Your task to perform on an android device: Add "usb-b" to the cart on newegg, then select checkout. Image 0: 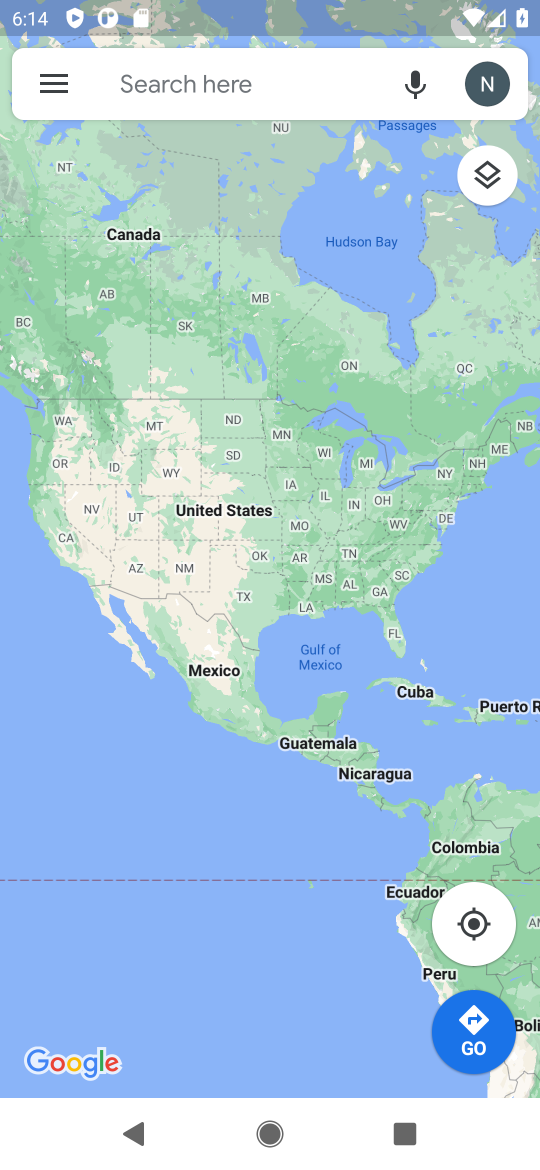
Step 0: press home button
Your task to perform on an android device: Add "usb-b" to the cart on newegg, then select checkout. Image 1: 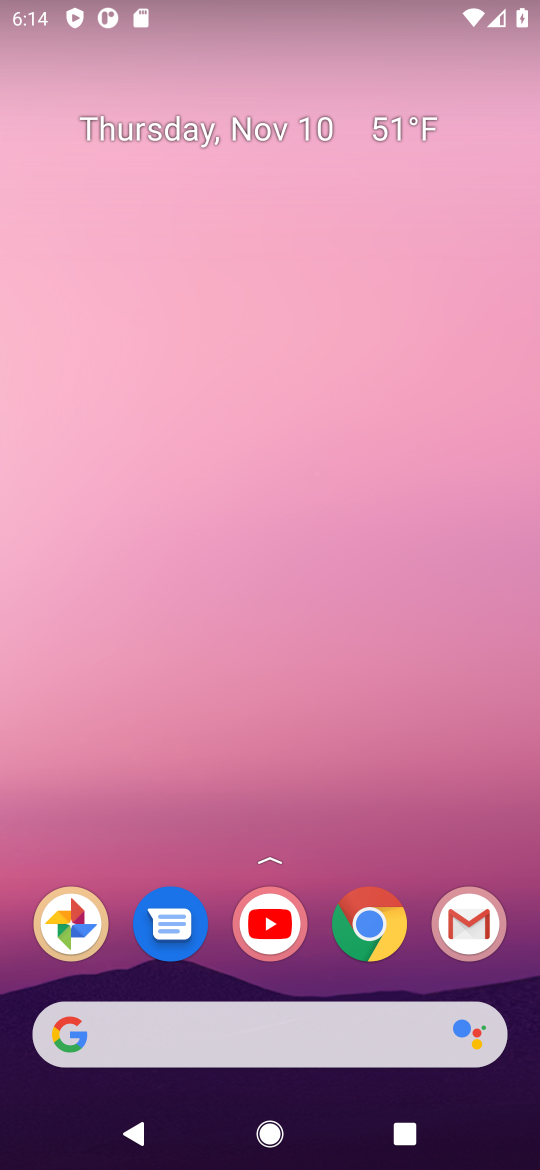
Step 1: click (371, 942)
Your task to perform on an android device: Add "usb-b" to the cart on newegg, then select checkout. Image 2: 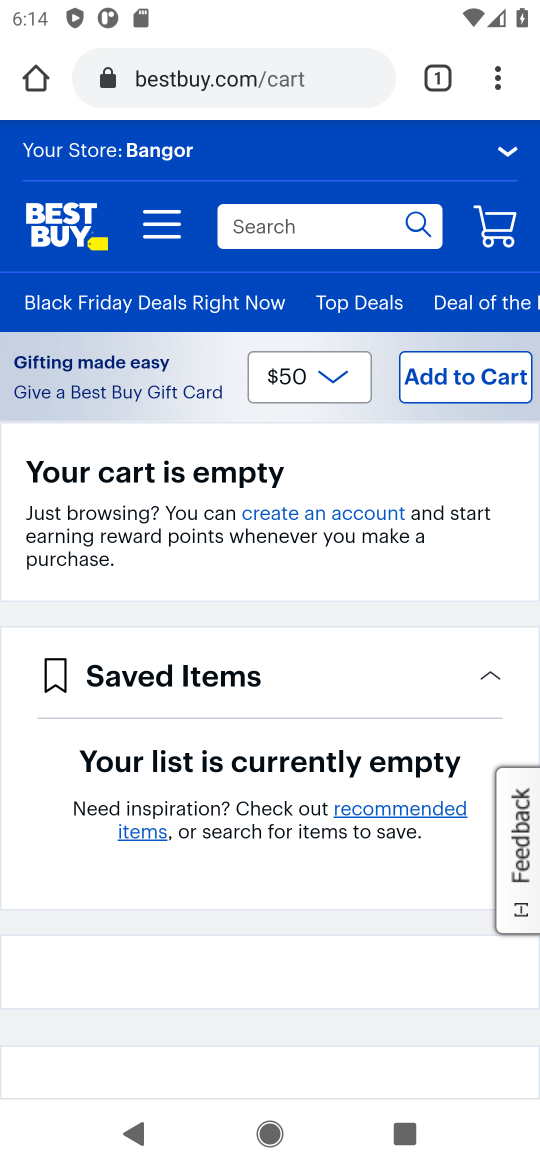
Step 2: click (232, 82)
Your task to perform on an android device: Add "usb-b" to the cart on newegg, then select checkout. Image 3: 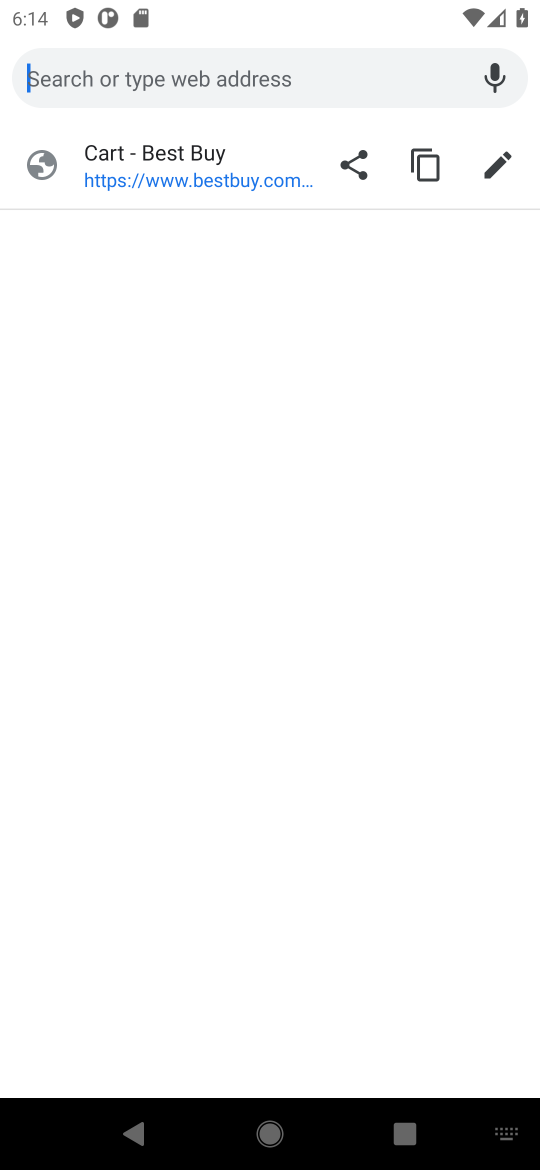
Step 3: type "newegg.com"
Your task to perform on an android device: Add "usb-b" to the cart on newegg, then select checkout. Image 4: 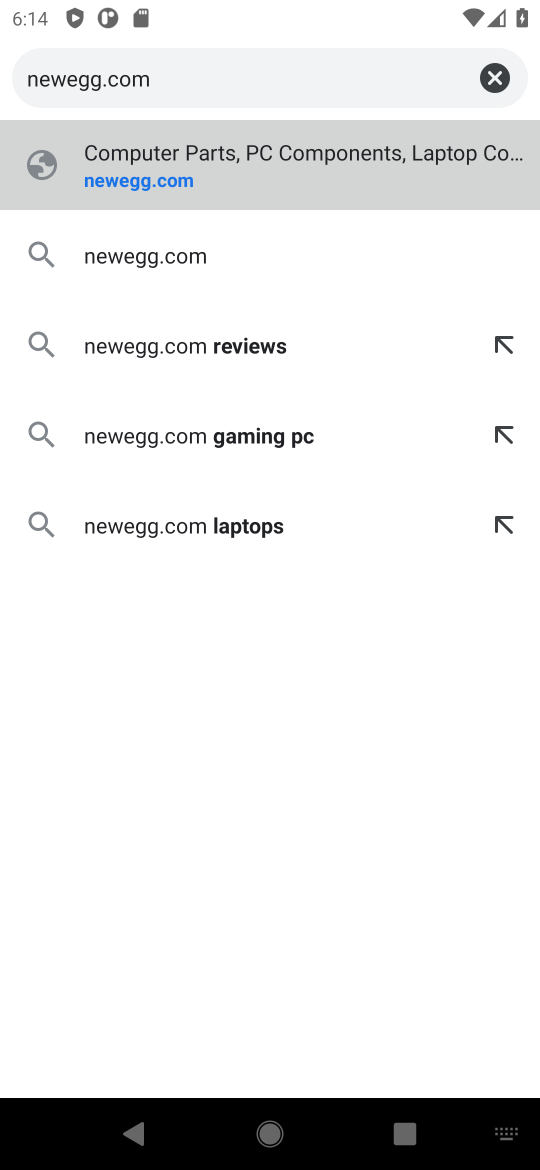
Step 4: click (121, 179)
Your task to perform on an android device: Add "usb-b" to the cart on newegg, then select checkout. Image 5: 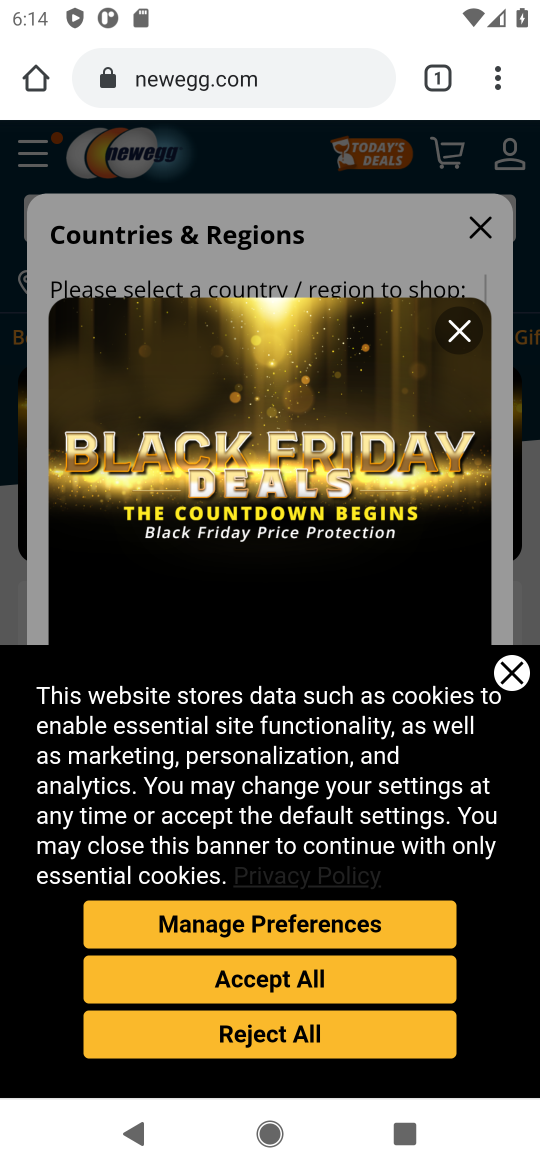
Step 5: click (466, 331)
Your task to perform on an android device: Add "usb-b" to the cart on newegg, then select checkout. Image 6: 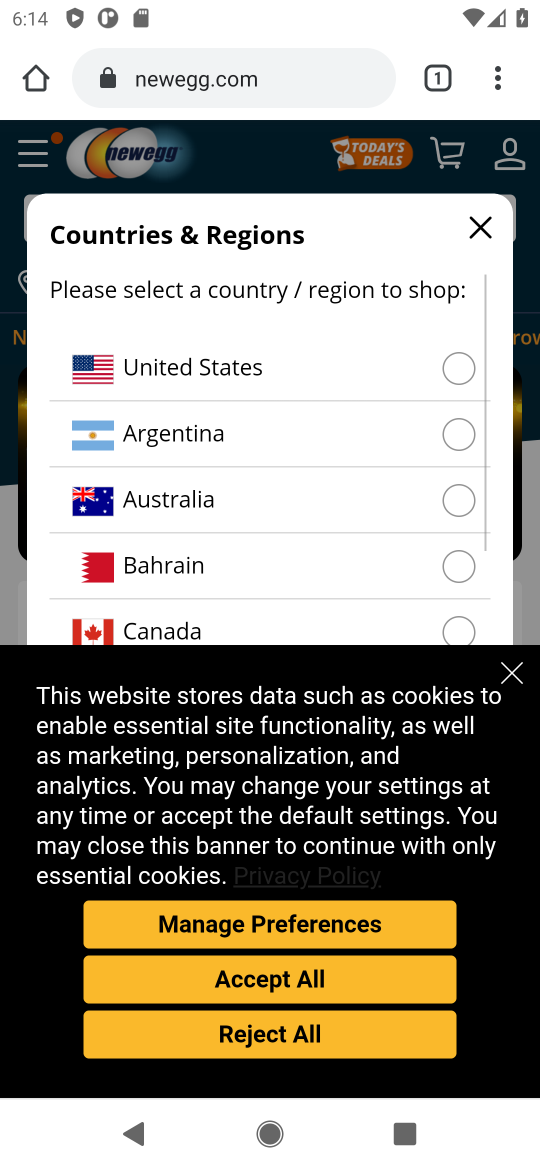
Step 6: click (166, 370)
Your task to perform on an android device: Add "usb-b" to the cart on newegg, then select checkout. Image 7: 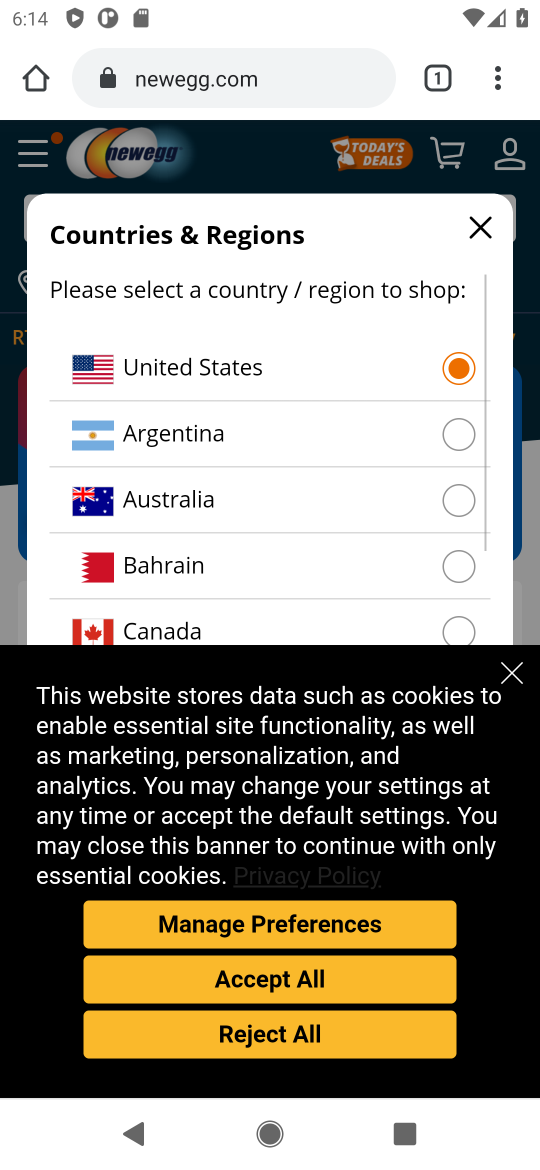
Step 7: click (504, 671)
Your task to perform on an android device: Add "usb-b" to the cart on newegg, then select checkout. Image 8: 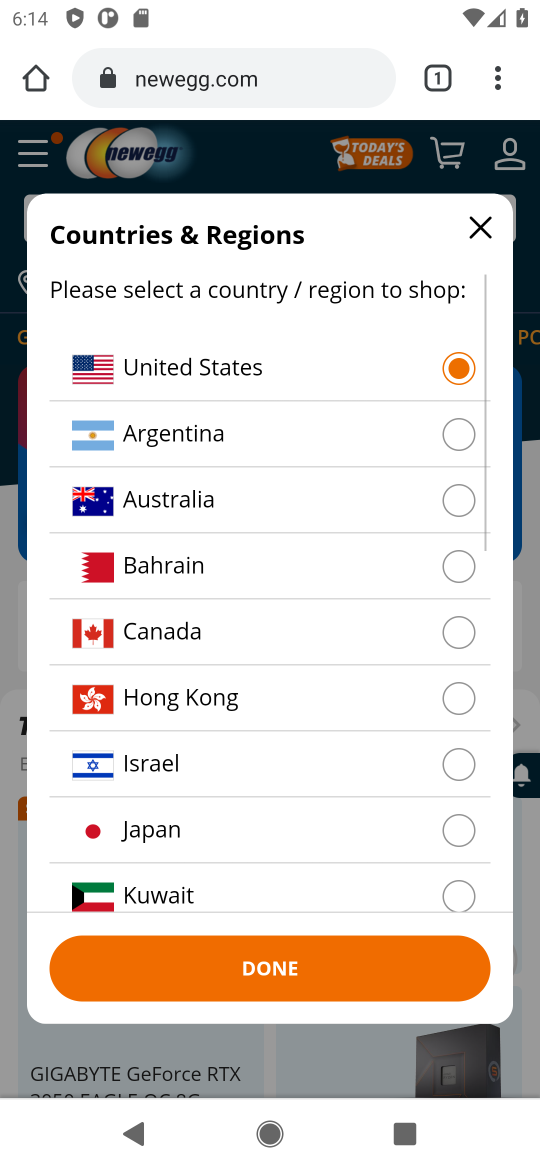
Step 8: click (255, 979)
Your task to perform on an android device: Add "usb-b" to the cart on newegg, then select checkout. Image 9: 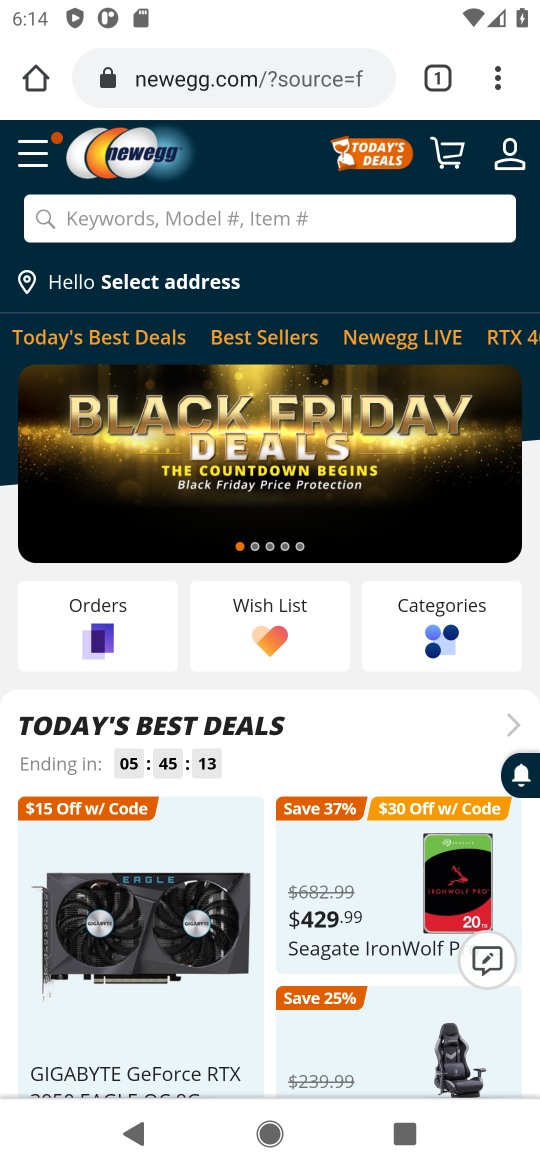
Step 9: click (190, 210)
Your task to perform on an android device: Add "usb-b" to the cart on newegg, then select checkout. Image 10: 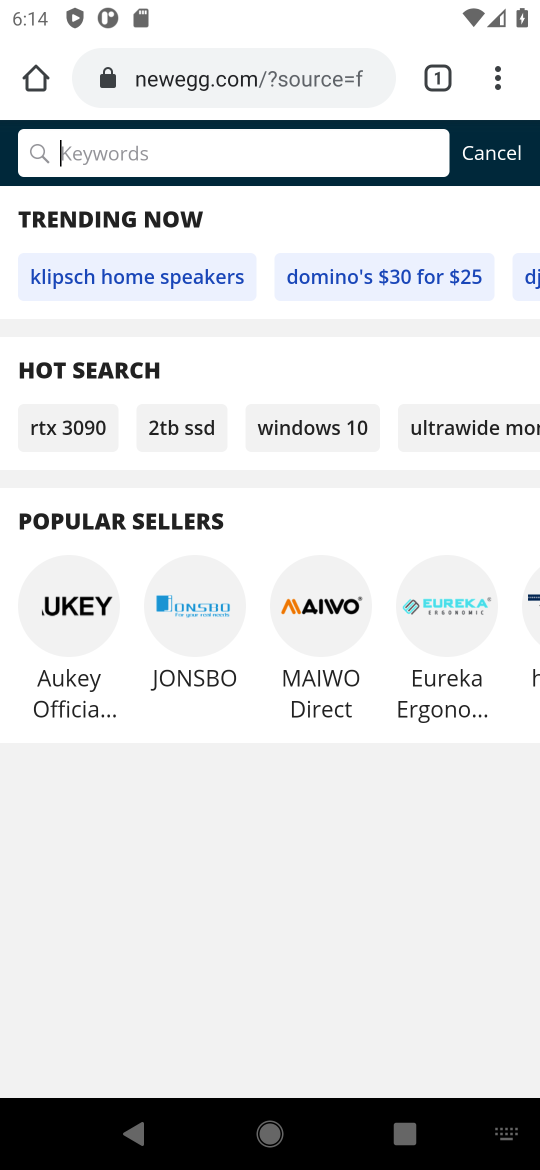
Step 10: type "usb-b"
Your task to perform on an android device: Add "usb-b" to the cart on newegg, then select checkout. Image 11: 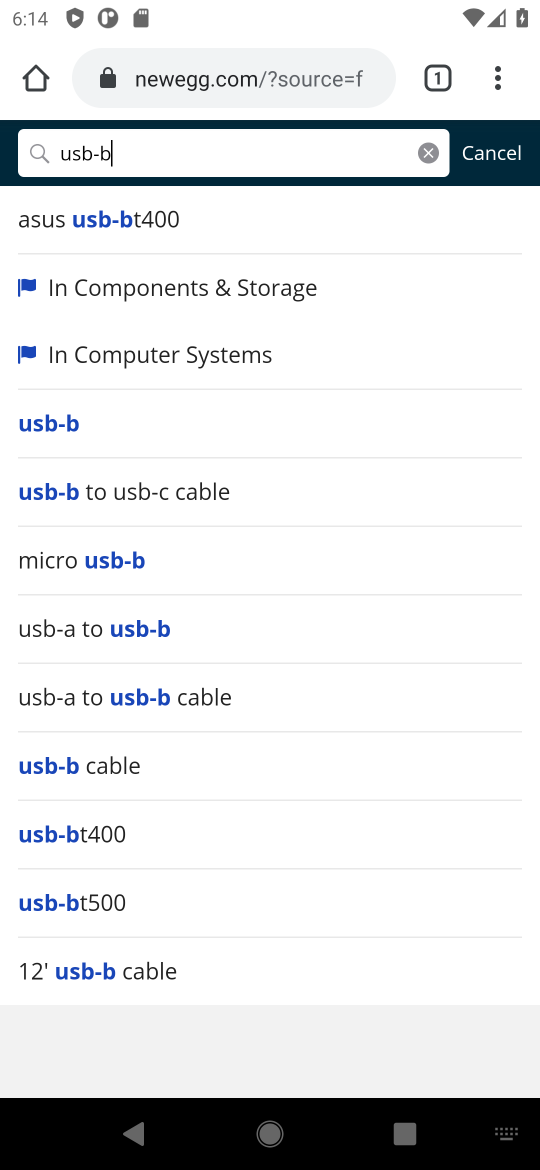
Step 11: click (43, 430)
Your task to perform on an android device: Add "usb-b" to the cart on newegg, then select checkout. Image 12: 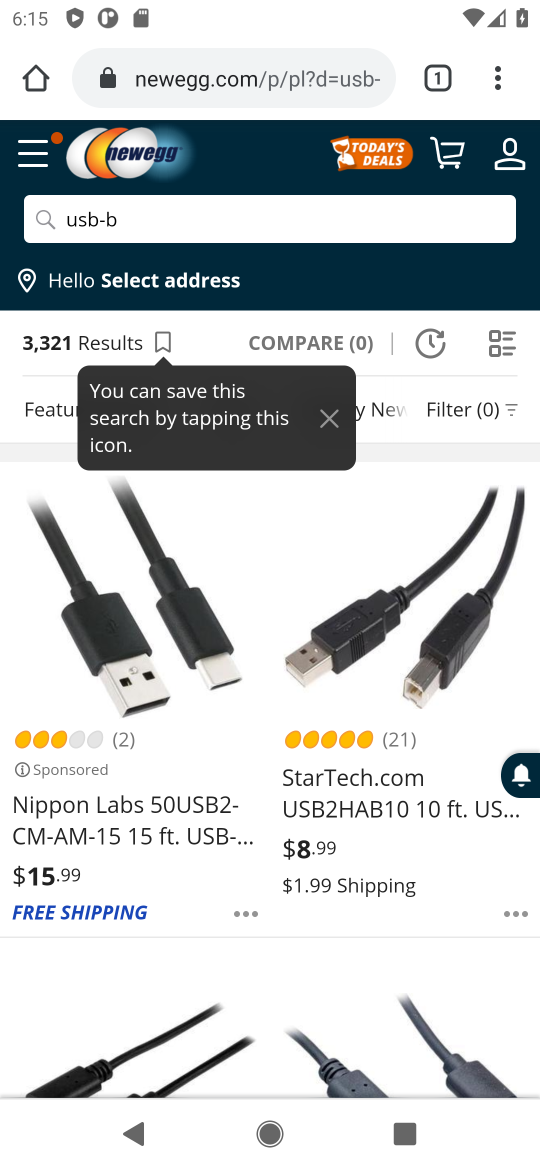
Step 12: click (105, 705)
Your task to perform on an android device: Add "usb-b" to the cart on newegg, then select checkout. Image 13: 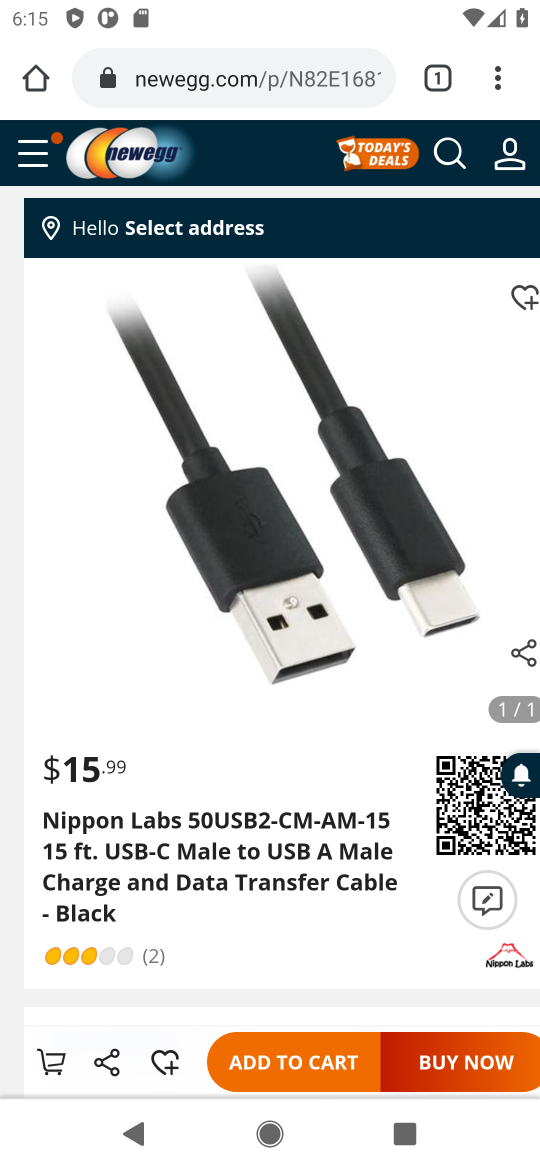
Step 13: press back button
Your task to perform on an android device: Add "usb-b" to the cart on newegg, then select checkout. Image 14: 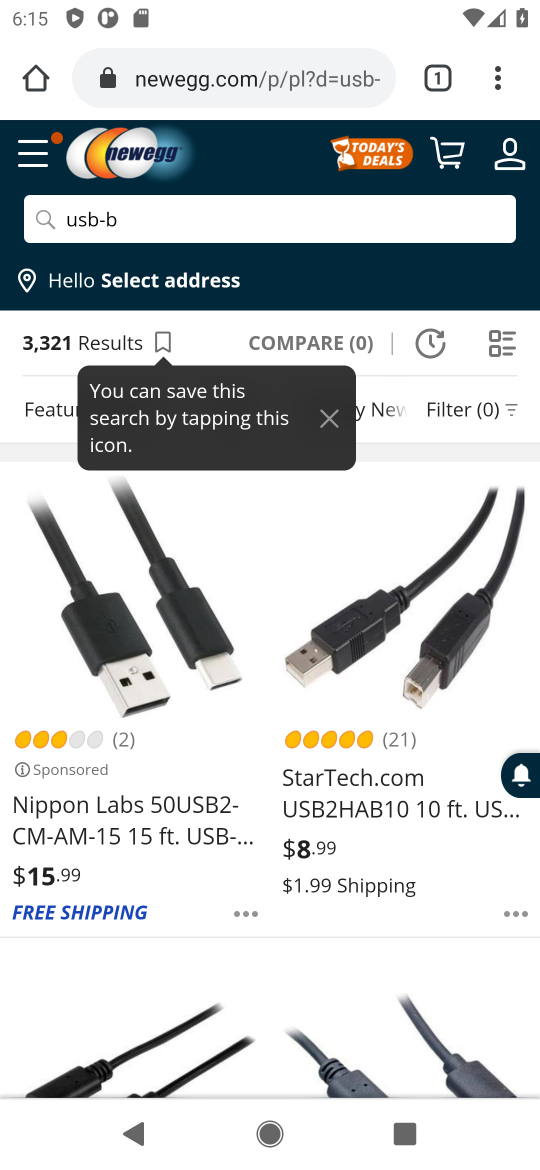
Step 14: drag from (176, 777) to (210, 450)
Your task to perform on an android device: Add "usb-b" to the cart on newegg, then select checkout. Image 15: 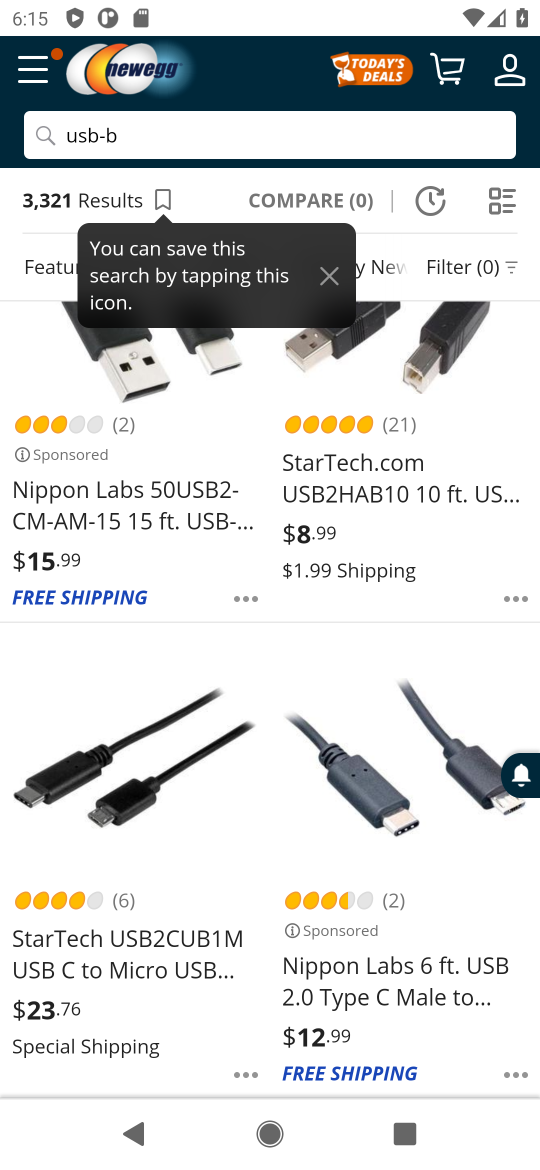
Step 15: drag from (180, 751) to (201, 541)
Your task to perform on an android device: Add "usb-b" to the cart on newegg, then select checkout. Image 16: 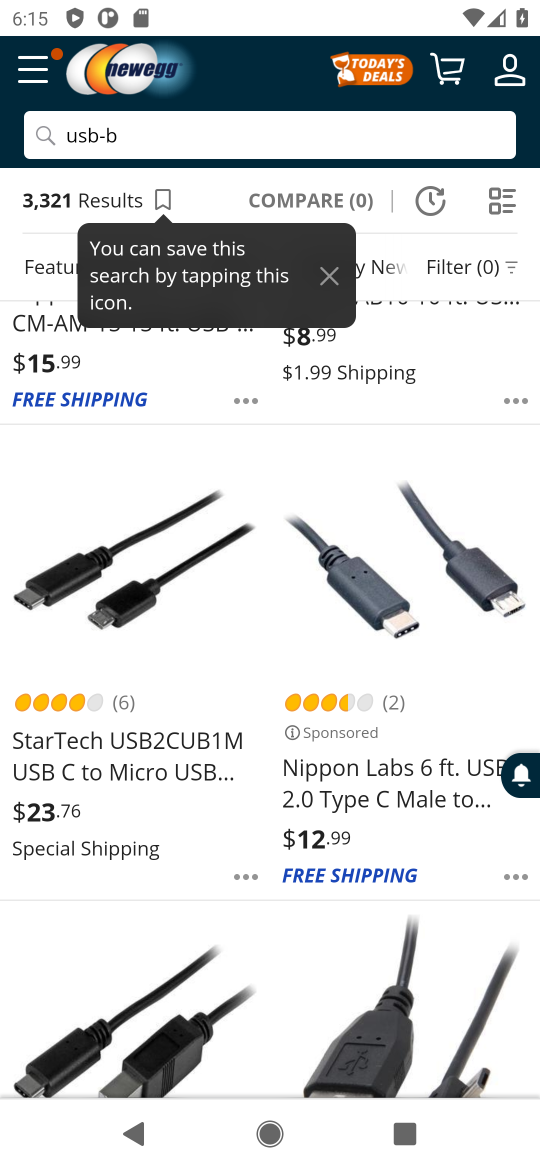
Step 16: click (159, 621)
Your task to perform on an android device: Add "usb-b" to the cart on newegg, then select checkout. Image 17: 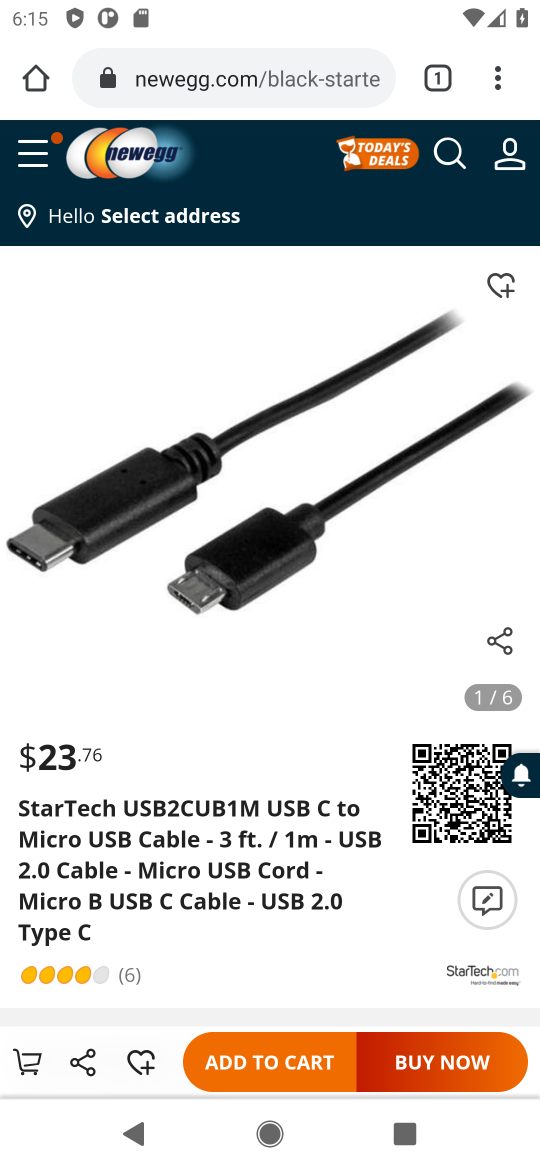
Step 17: drag from (256, 808) to (267, 647)
Your task to perform on an android device: Add "usb-b" to the cart on newegg, then select checkout. Image 18: 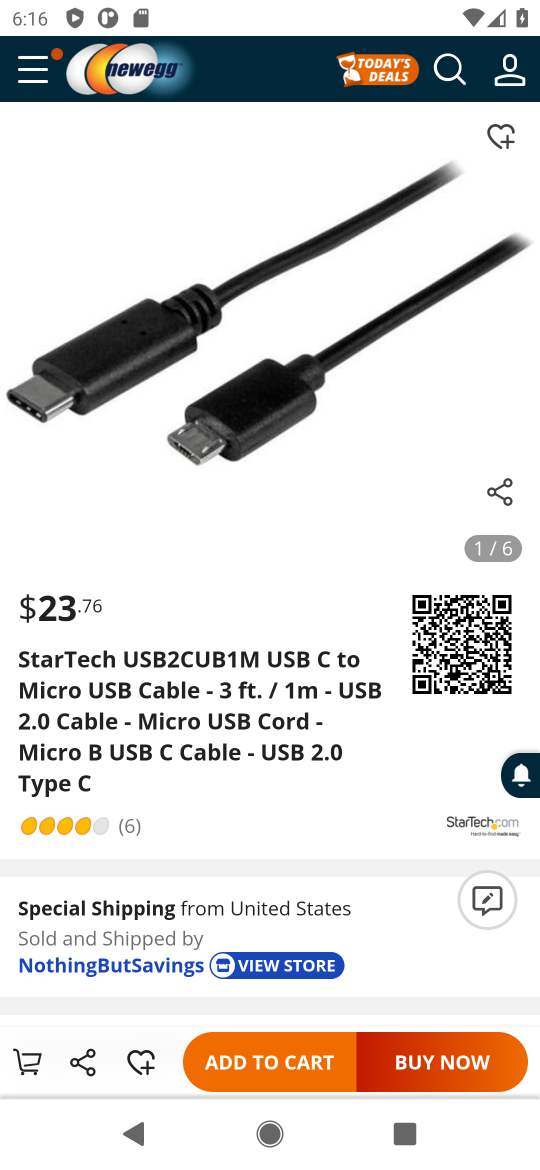
Step 18: click (276, 1064)
Your task to perform on an android device: Add "usb-b" to the cart on newegg, then select checkout. Image 19: 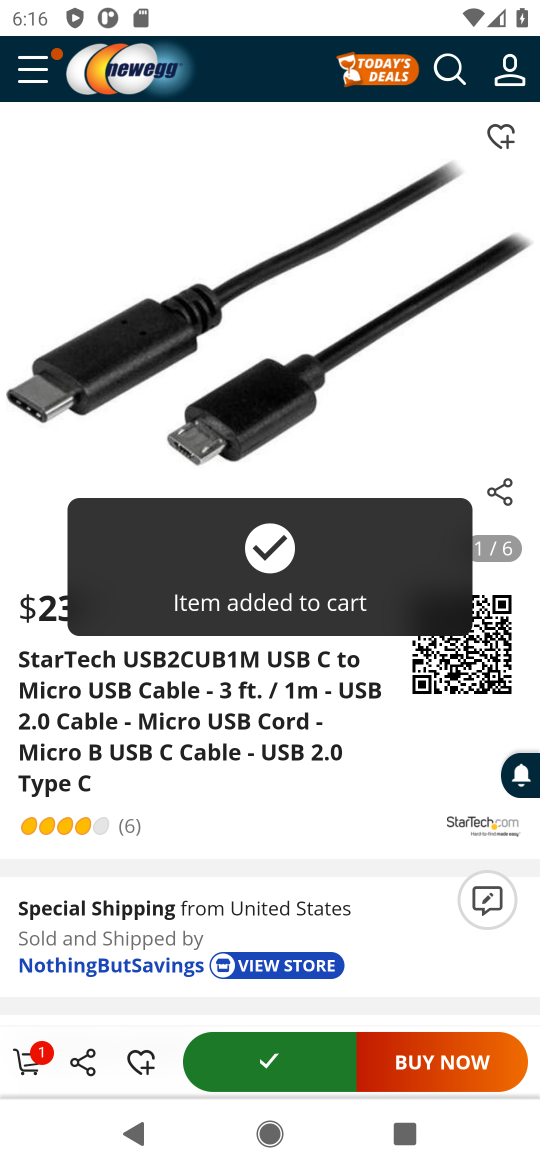
Step 19: click (28, 1048)
Your task to perform on an android device: Add "usb-b" to the cart on newegg, then select checkout. Image 20: 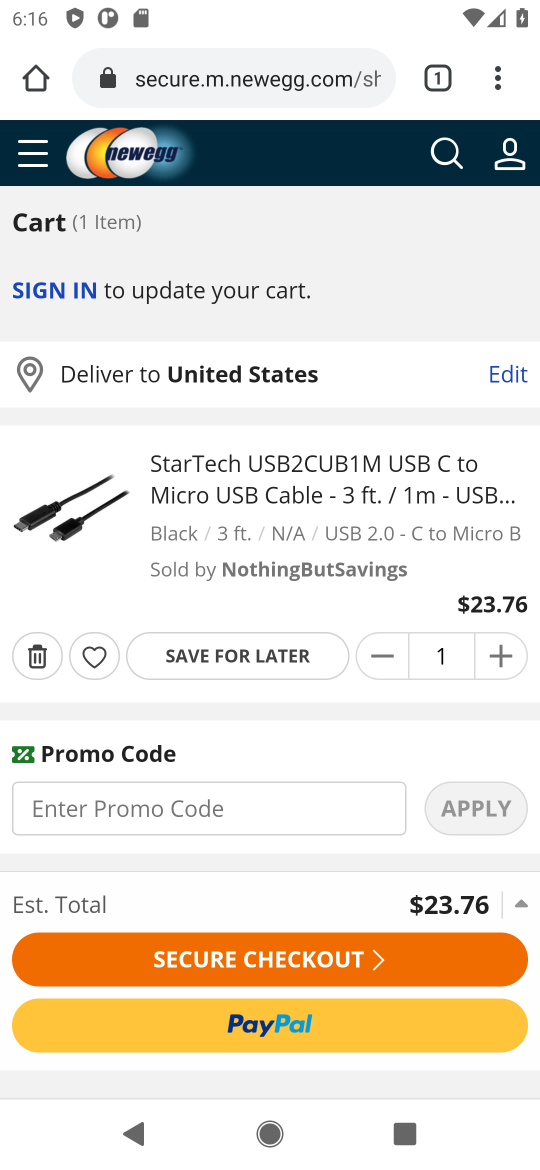
Step 20: click (209, 961)
Your task to perform on an android device: Add "usb-b" to the cart on newegg, then select checkout. Image 21: 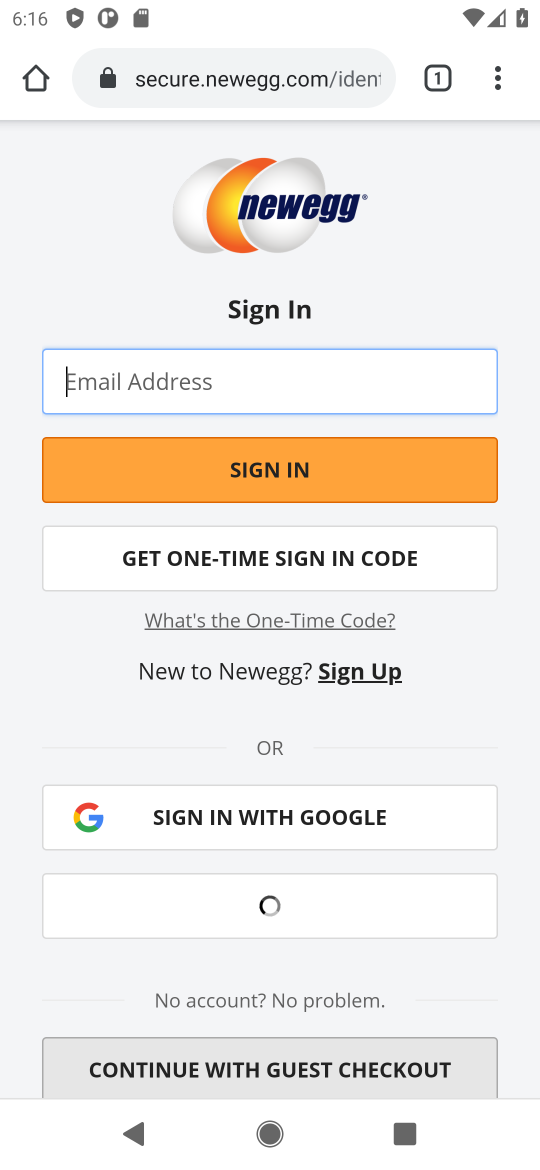
Step 21: task complete